Your task to perform on an android device: Open the Play Movies app and select the watchlist tab. Image 0: 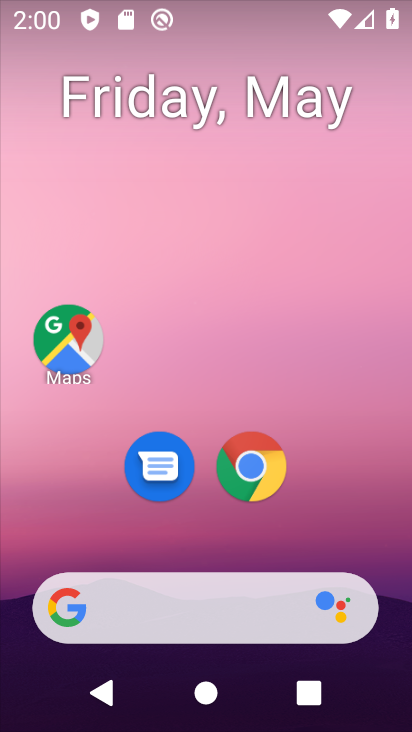
Step 0: drag from (150, 553) to (241, 63)
Your task to perform on an android device: Open the Play Movies app and select the watchlist tab. Image 1: 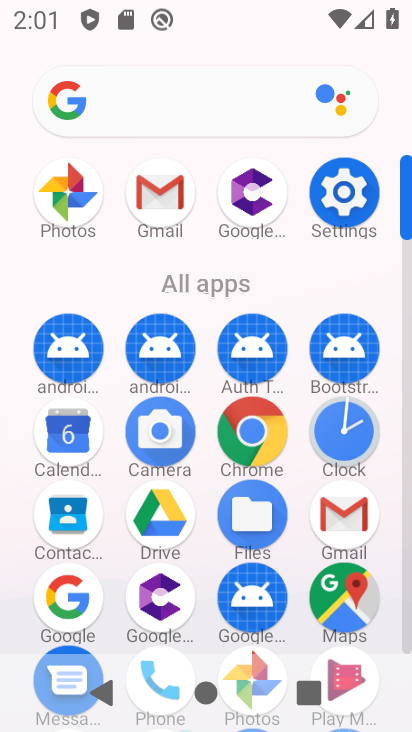
Step 1: drag from (193, 634) to (261, 320)
Your task to perform on an android device: Open the Play Movies app and select the watchlist tab. Image 2: 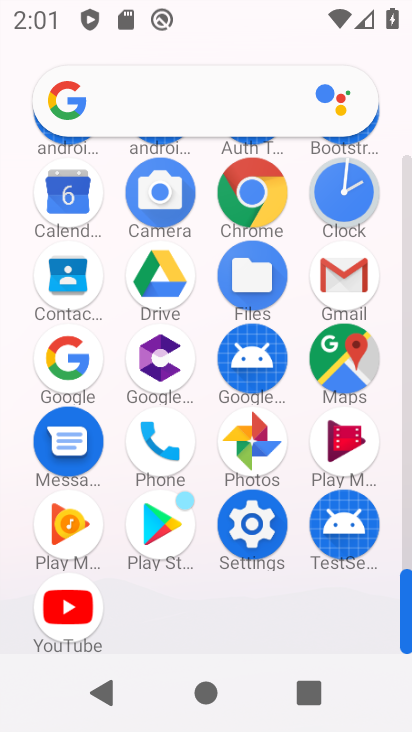
Step 2: click (332, 437)
Your task to perform on an android device: Open the Play Movies app and select the watchlist tab. Image 3: 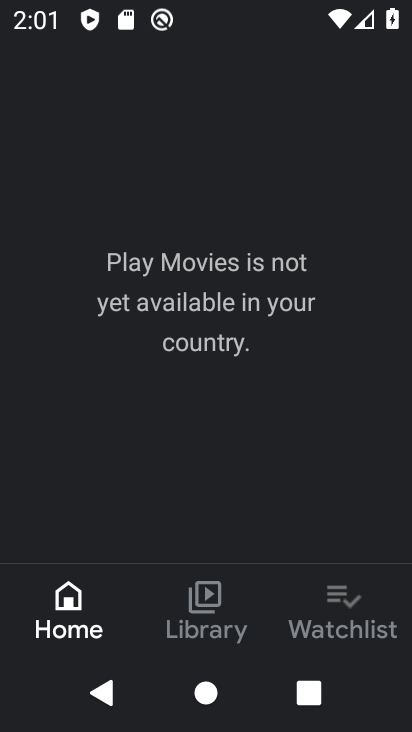
Step 3: click (369, 602)
Your task to perform on an android device: Open the Play Movies app and select the watchlist tab. Image 4: 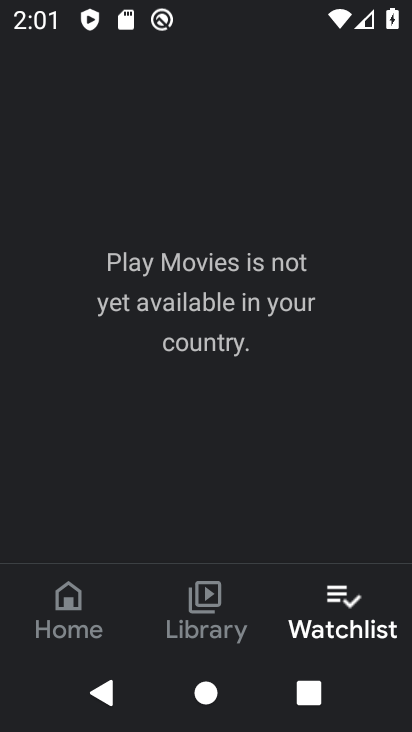
Step 4: click (368, 607)
Your task to perform on an android device: Open the Play Movies app and select the watchlist tab. Image 5: 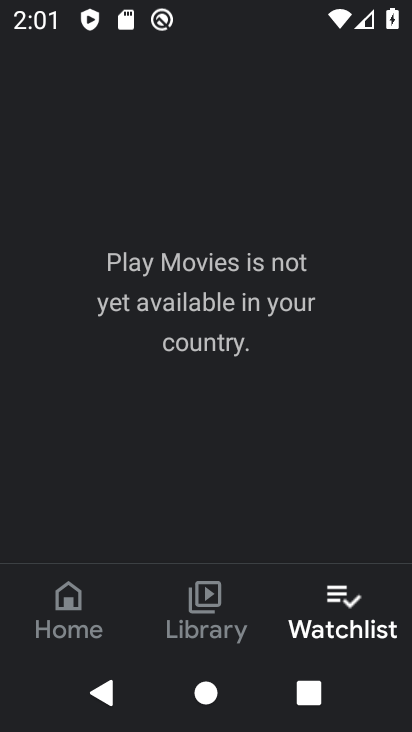
Step 5: task complete